Your task to perform on an android device: Show me popular games on the Play Store Image 0: 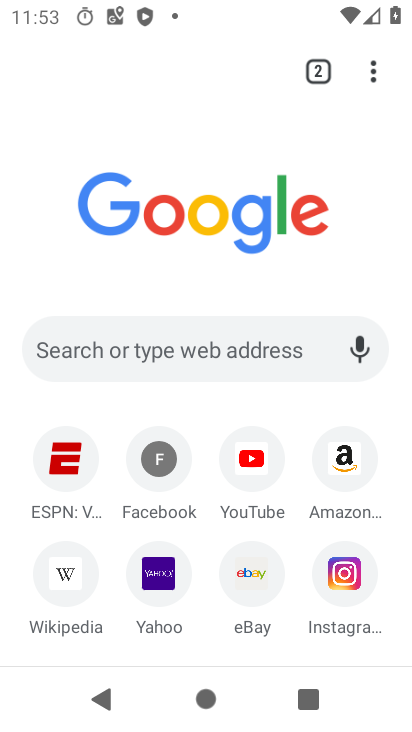
Step 0: press home button
Your task to perform on an android device: Show me popular games on the Play Store Image 1: 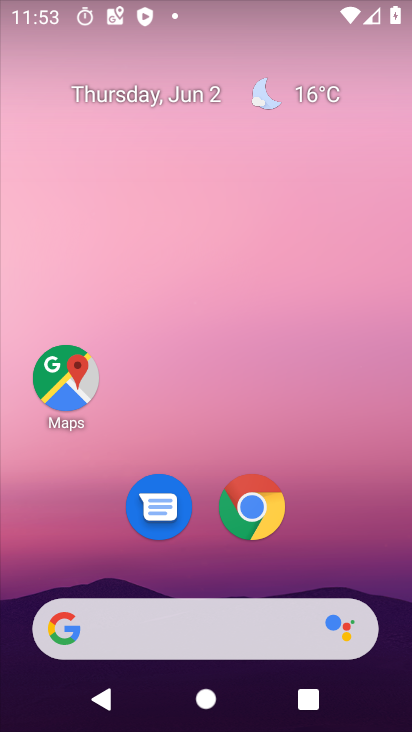
Step 1: drag from (404, 656) to (264, 34)
Your task to perform on an android device: Show me popular games on the Play Store Image 2: 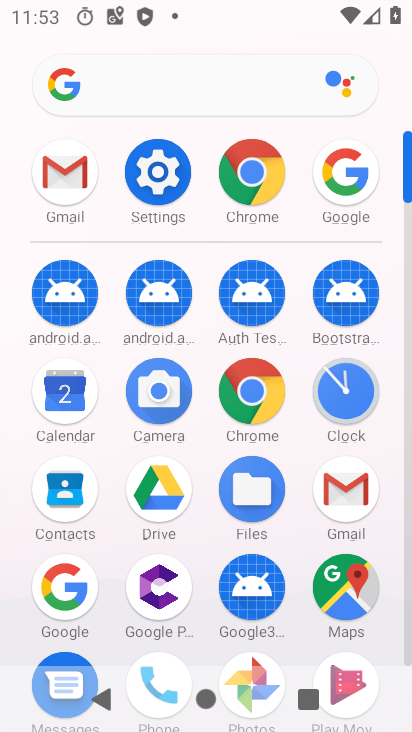
Step 2: drag from (201, 627) to (223, 91)
Your task to perform on an android device: Show me popular games on the Play Store Image 3: 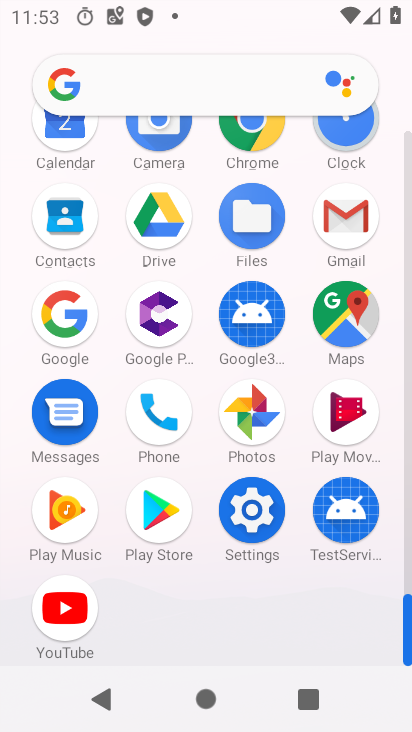
Step 3: click (151, 514)
Your task to perform on an android device: Show me popular games on the Play Store Image 4: 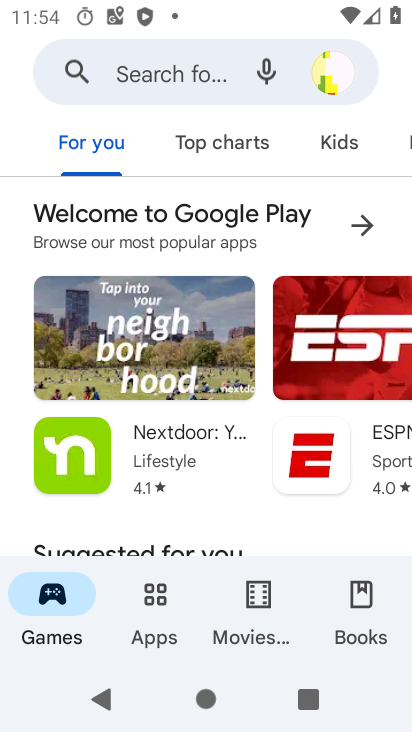
Step 4: click (256, 544)
Your task to perform on an android device: Show me popular games on the Play Store Image 5: 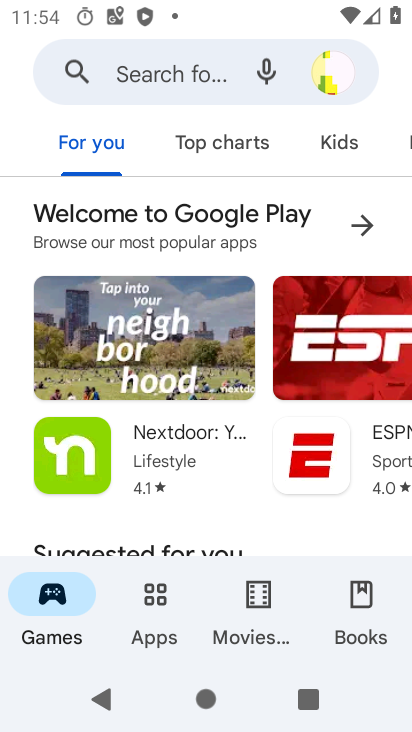
Step 5: drag from (251, 349) to (237, 105)
Your task to perform on an android device: Show me popular games on the Play Store Image 6: 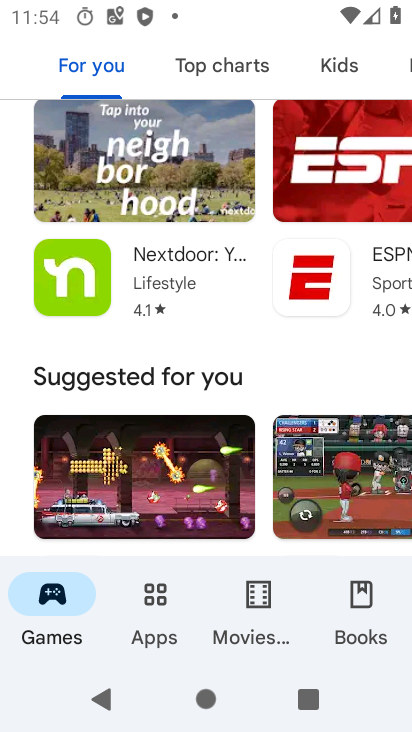
Step 6: drag from (258, 510) to (264, 347)
Your task to perform on an android device: Show me popular games on the Play Store Image 7: 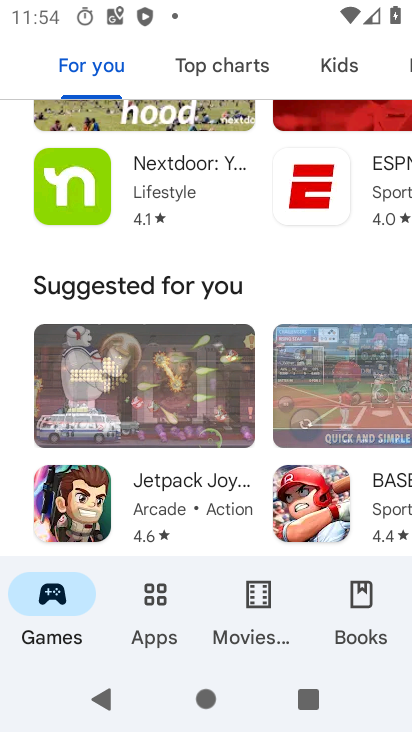
Step 7: click (261, 137)
Your task to perform on an android device: Show me popular games on the Play Store Image 8: 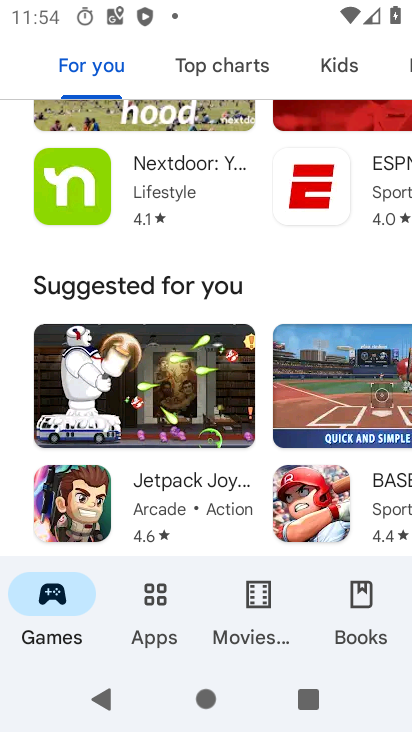
Step 8: drag from (228, 486) to (188, 24)
Your task to perform on an android device: Show me popular games on the Play Store Image 9: 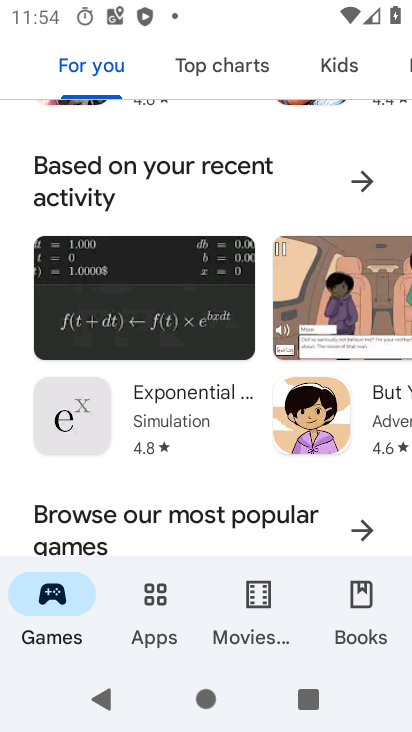
Step 9: drag from (195, 491) to (221, 148)
Your task to perform on an android device: Show me popular games on the Play Store Image 10: 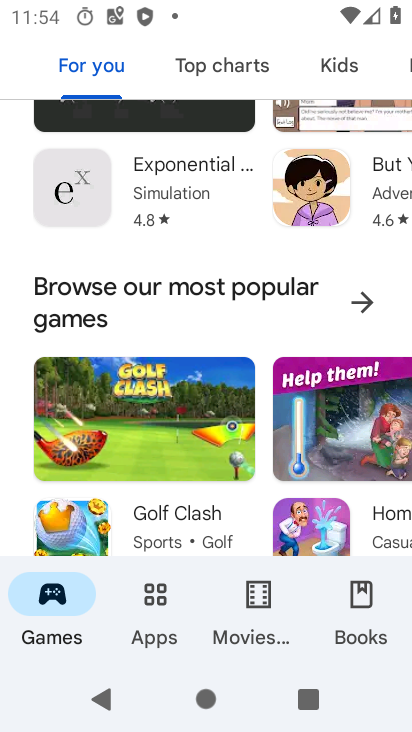
Step 10: click (203, 304)
Your task to perform on an android device: Show me popular games on the Play Store Image 11: 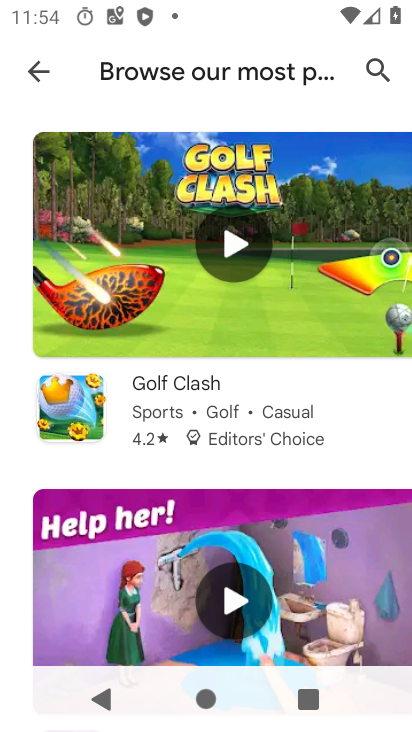
Step 11: task complete